Your task to perform on an android device: open a bookmark in the chrome app Image 0: 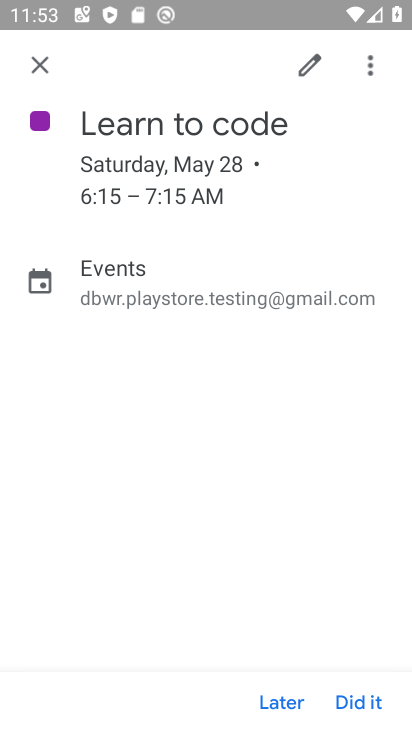
Step 0: press home button
Your task to perform on an android device: open a bookmark in the chrome app Image 1: 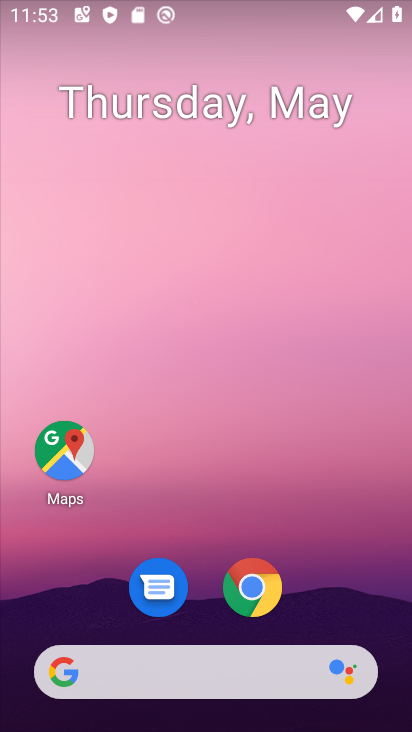
Step 1: click (240, 592)
Your task to perform on an android device: open a bookmark in the chrome app Image 2: 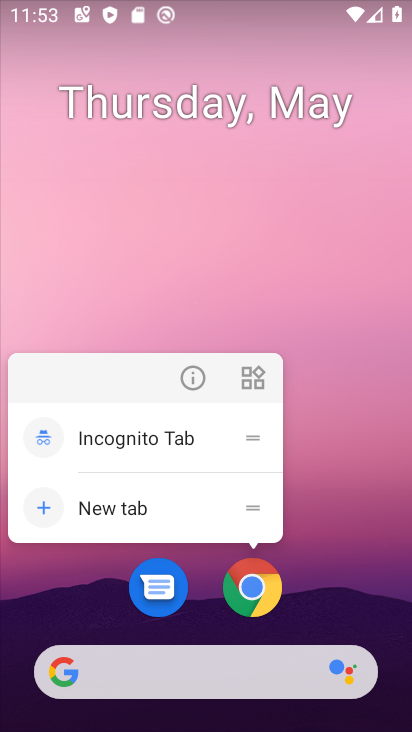
Step 2: click (236, 580)
Your task to perform on an android device: open a bookmark in the chrome app Image 3: 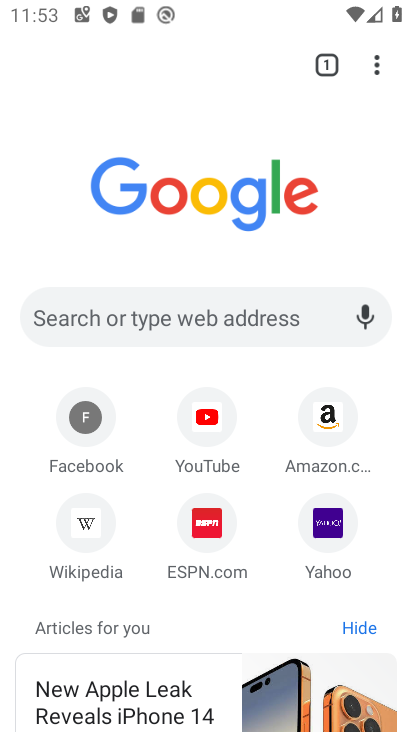
Step 3: click (377, 69)
Your task to perform on an android device: open a bookmark in the chrome app Image 4: 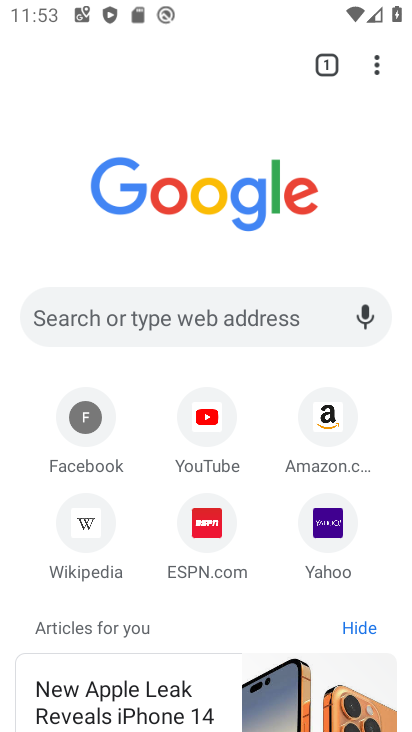
Step 4: click (378, 71)
Your task to perform on an android device: open a bookmark in the chrome app Image 5: 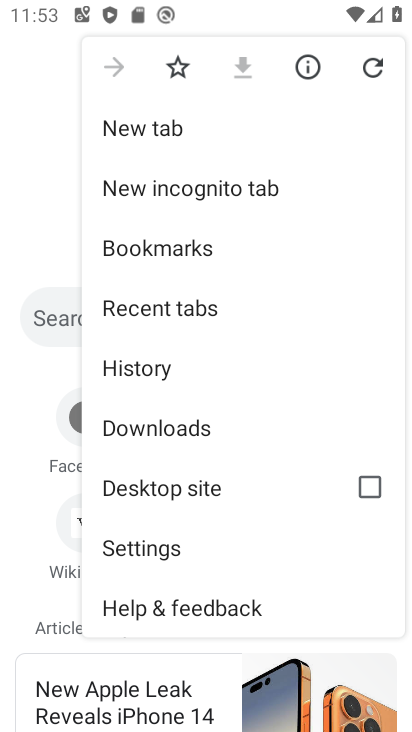
Step 5: click (163, 251)
Your task to perform on an android device: open a bookmark in the chrome app Image 6: 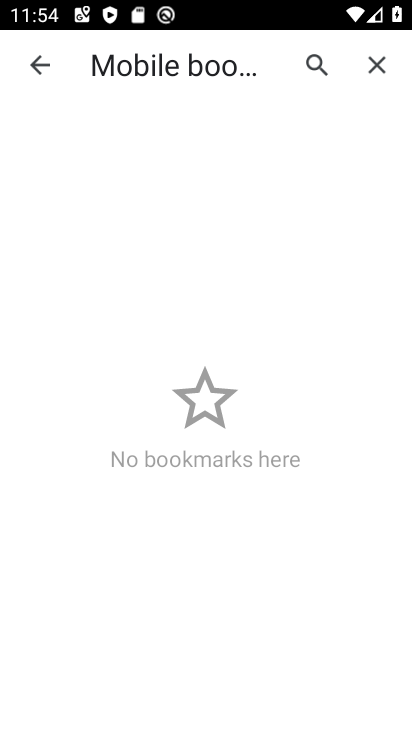
Step 6: task complete